Your task to perform on an android device: Go to settings Image 0: 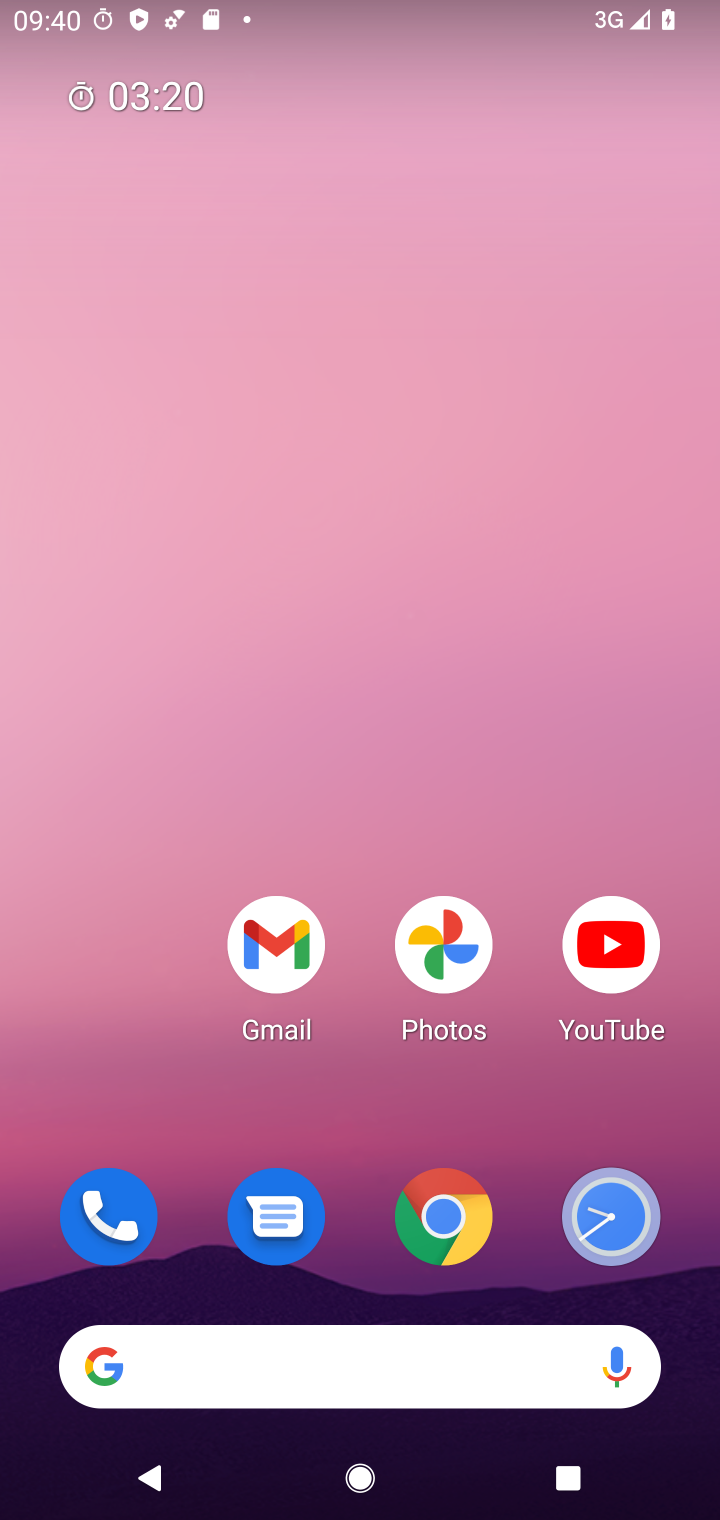
Step 0: drag from (365, 1300) to (380, 188)
Your task to perform on an android device: Go to settings Image 1: 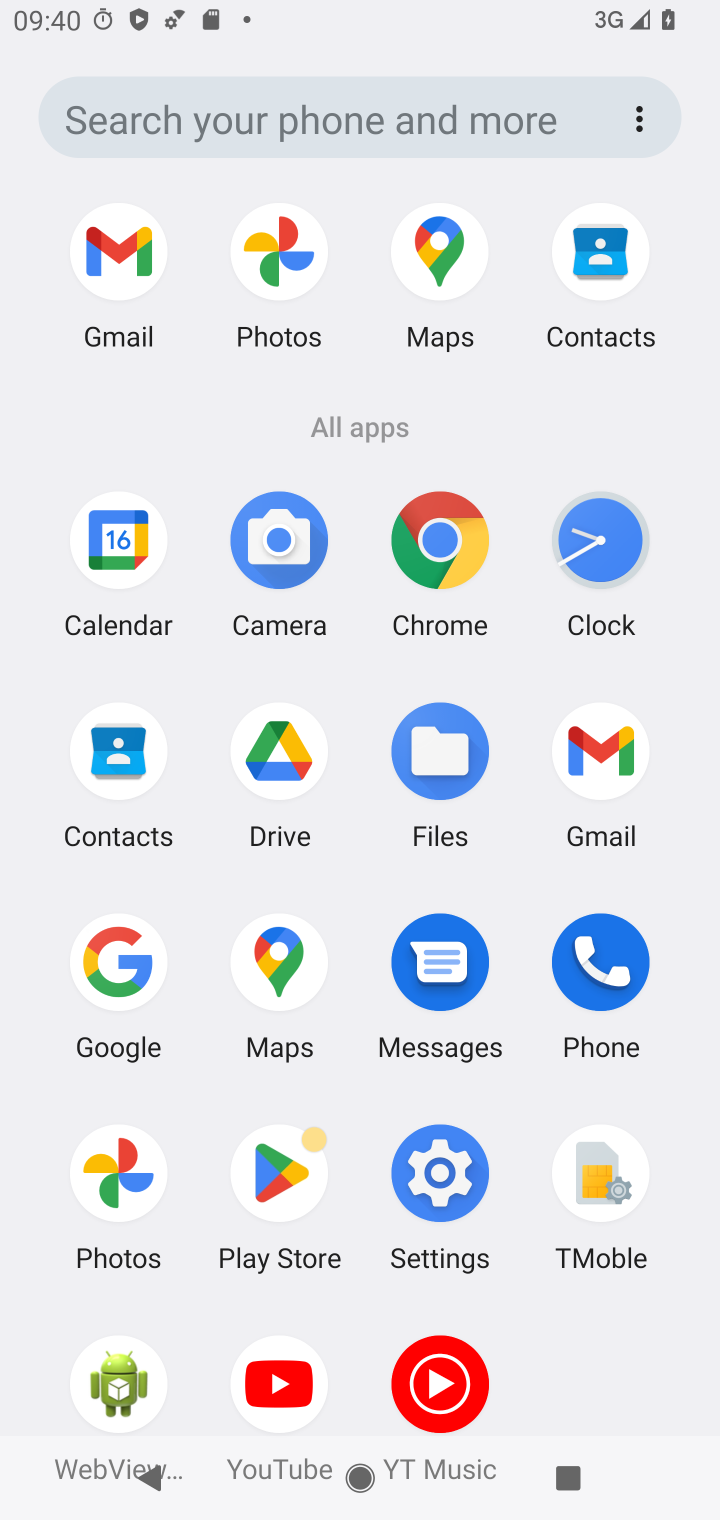
Step 1: click (463, 1150)
Your task to perform on an android device: Go to settings Image 2: 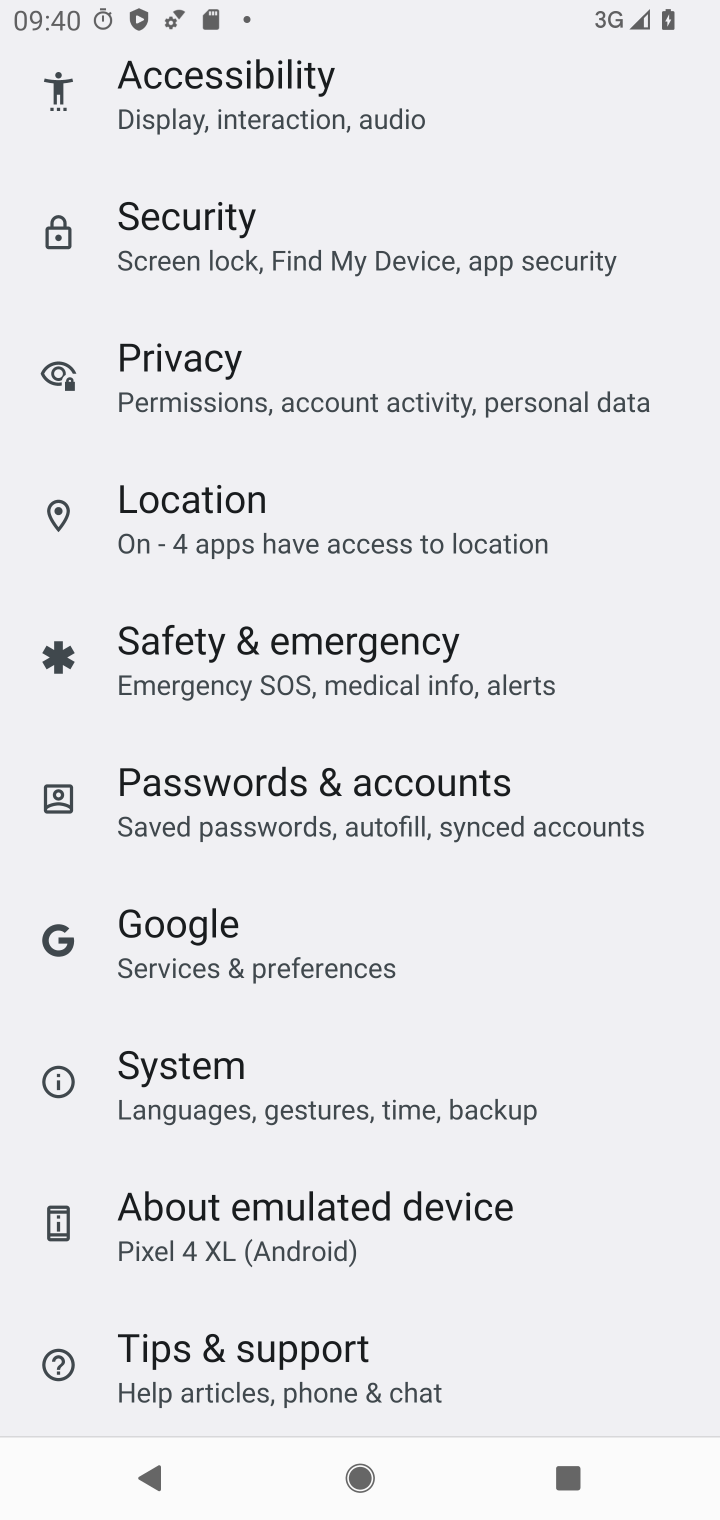
Step 2: task complete